Your task to perform on an android device: change timer sound Image 0: 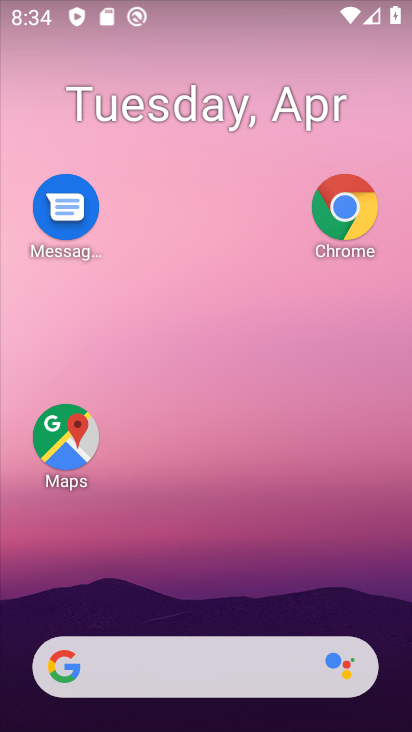
Step 0: drag from (200, 620) to (187, 15)
Your task to perform on an android device: change timer sound Image 1: 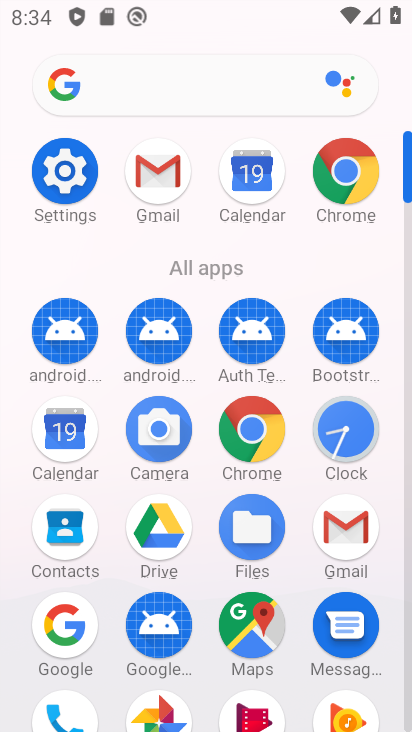
Step 1: click (352, 427)
Your task to perform on an android device: change timer sound Image 2: 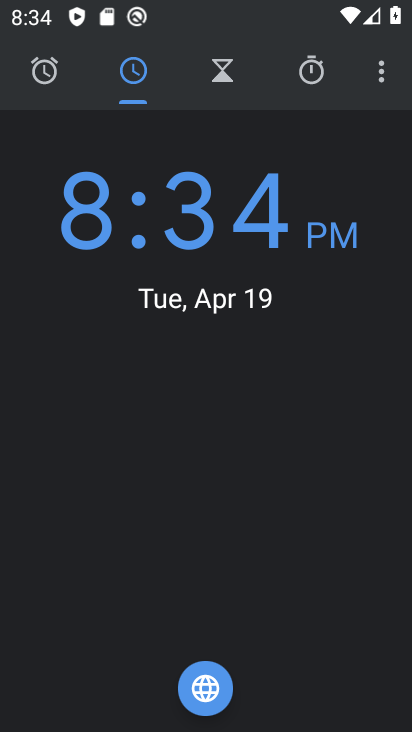
Step 2: click (381, 81)
Your task to perform on an android device: change timer sound Image 3: 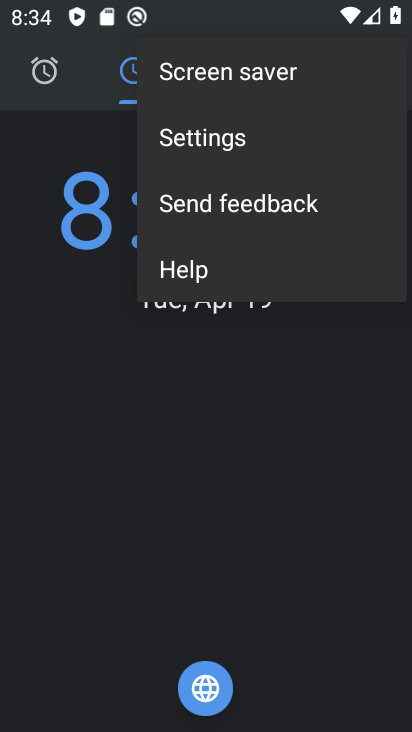
Step 3: click (217, 134)
Your task to perform on an android device: change timer sound Image 4: 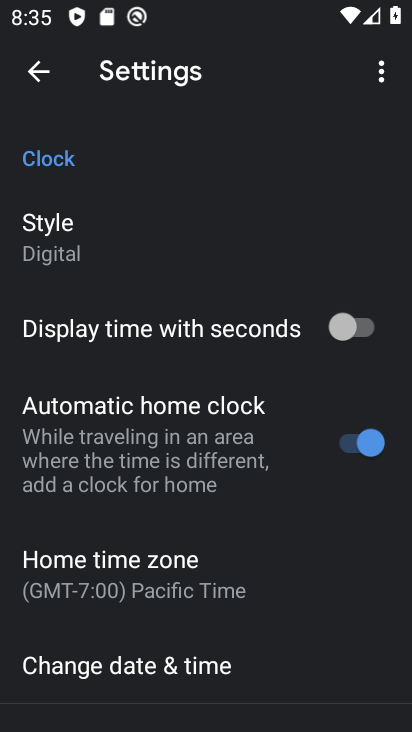
Step 4: drag from (106, 601) to (108, 70)
Your task to perform on an android device: change timer sound Image 5: 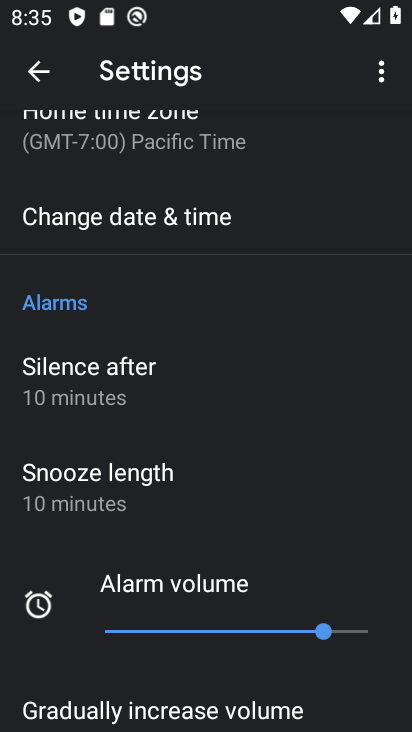
Step 5: drag from (177, 647) to (134, 187)
Your task to perform on an android device: change timer sound Image 6: 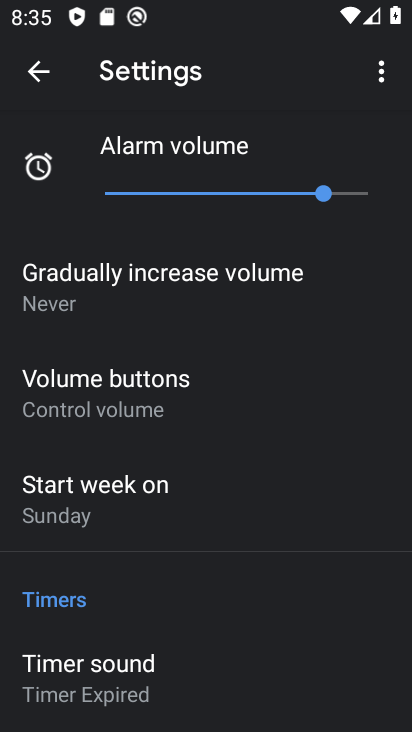
Step 6: click (102, 660)
Your task to perform on an android device: change timer sound Image 7: 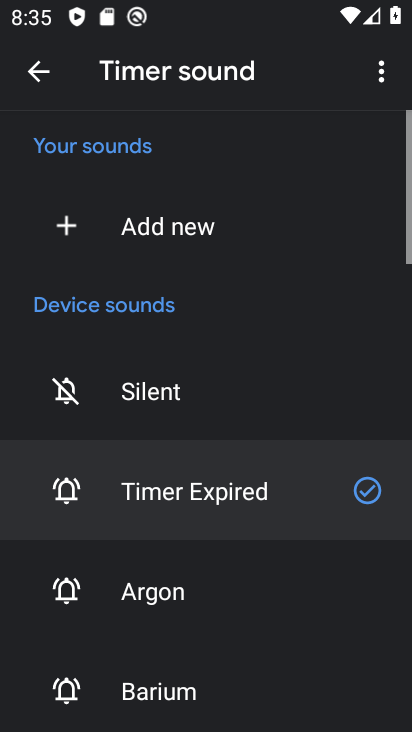
Step 7: click (144, 595)
Your task to perform on an android device: change timer sound Image 8: 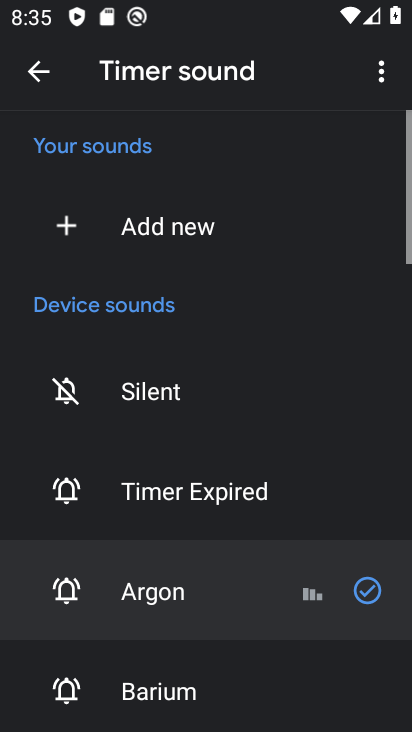
Step 8: task complete